Your task to perform on an android device: Open Google Chrome Image 0: 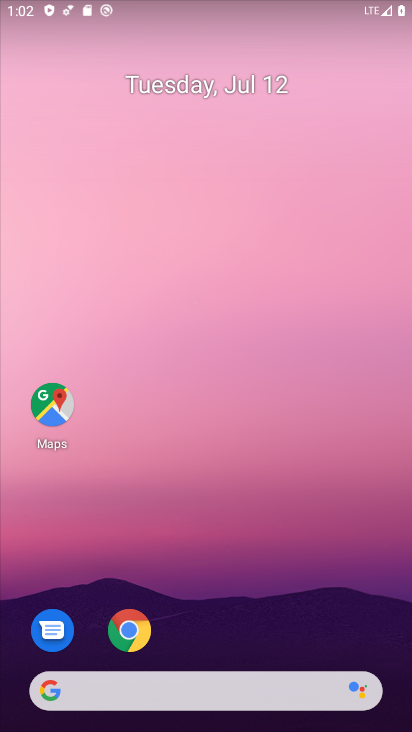
Step 0: click (126, 630)
Your task to perform on an android device: Open Google Chrome Image 1: 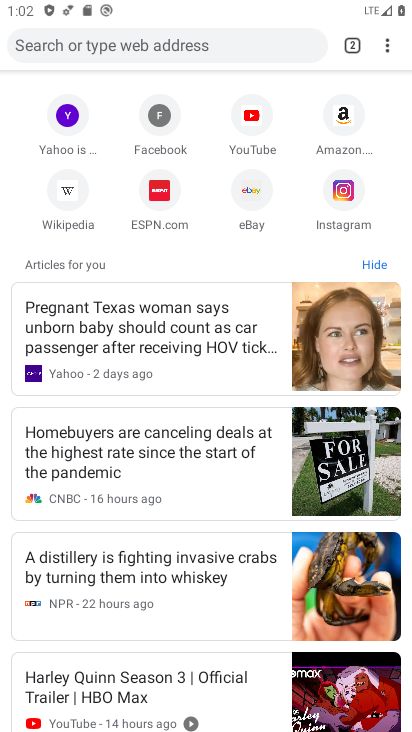
Step 1: task complete